Your task to perform on an android device: Open Google Chrome Image 0: 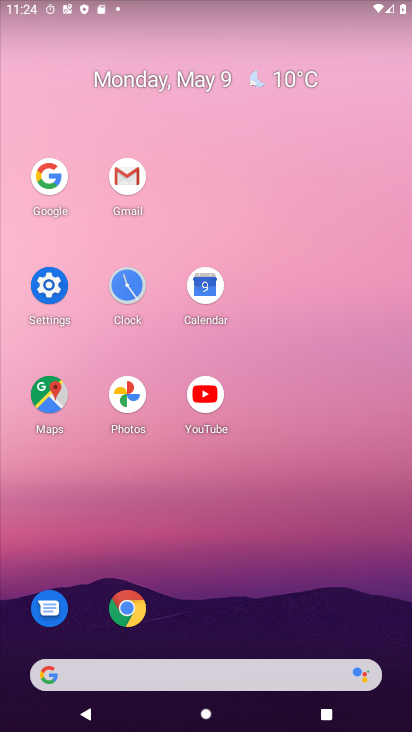
Step 0: click (130, 608)
Your task to perform on an android device: Open Google Chrome Image 1: 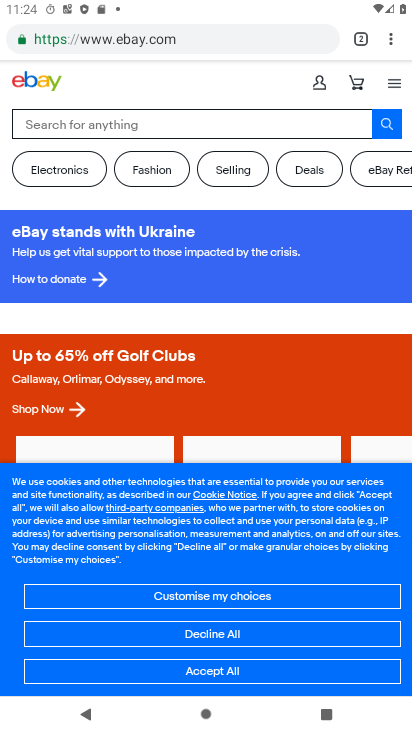
Step 1: task complete